Your task to perform on an android device: Open ESPN.com Image 0: 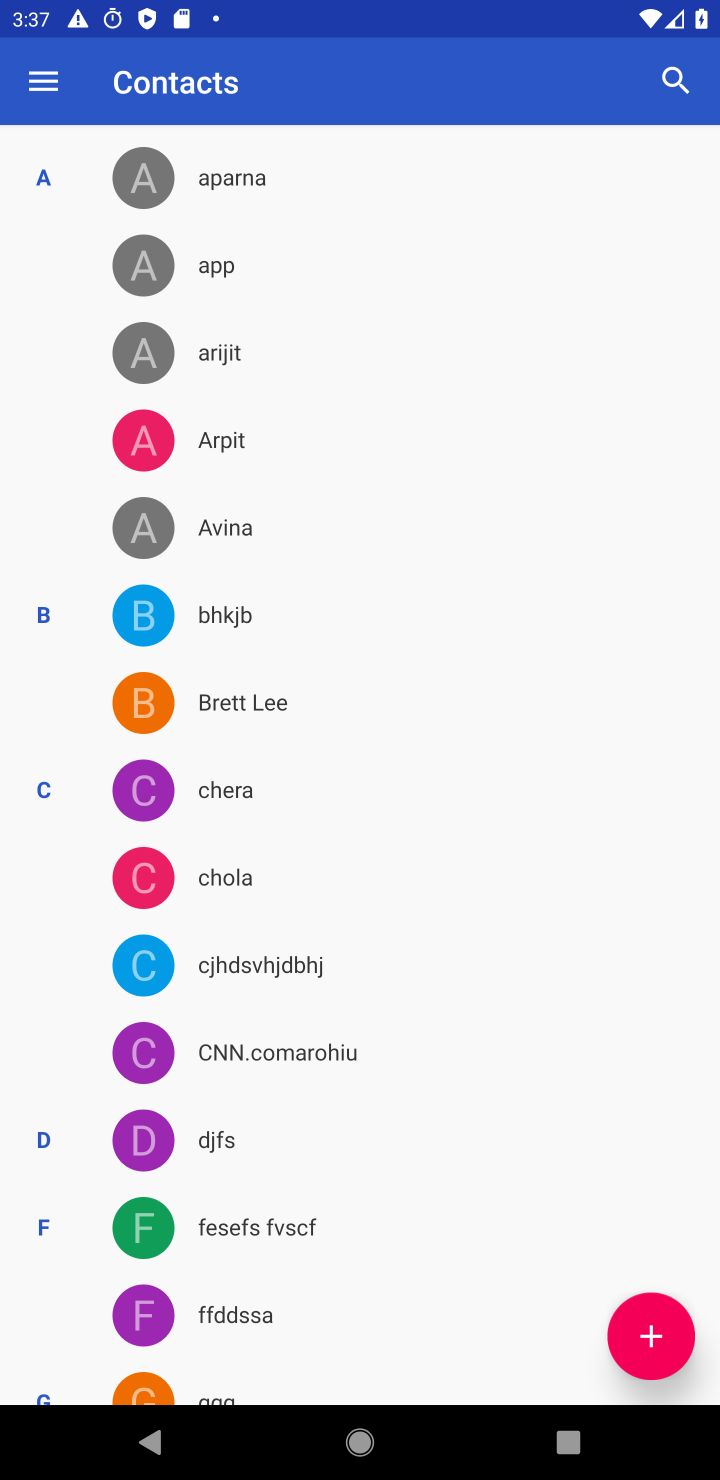
Step 0: press home button
Your task to perform on an android device: Open ESPN.com Image 1: 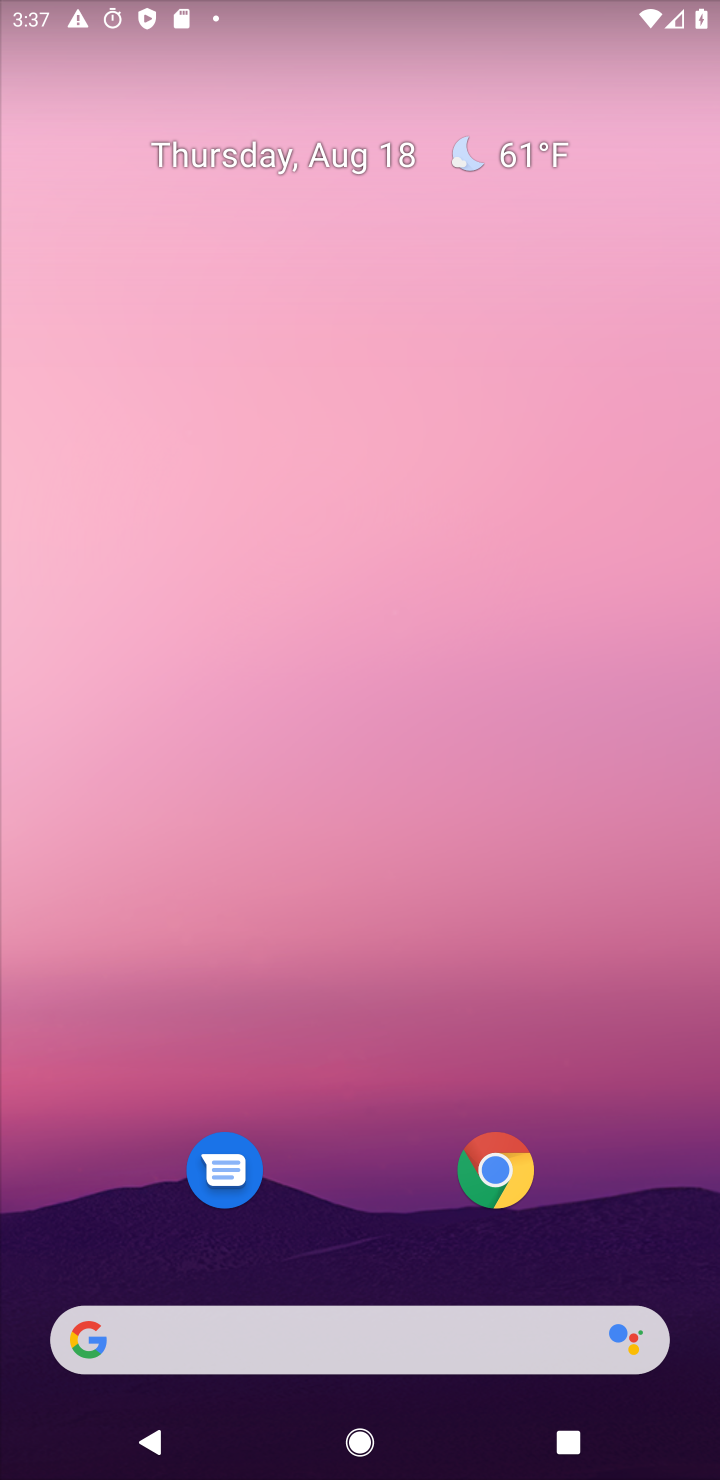
Step 1: click (179, 1325)
Your task to perform on an android device: Open ESPN.com Image 2: 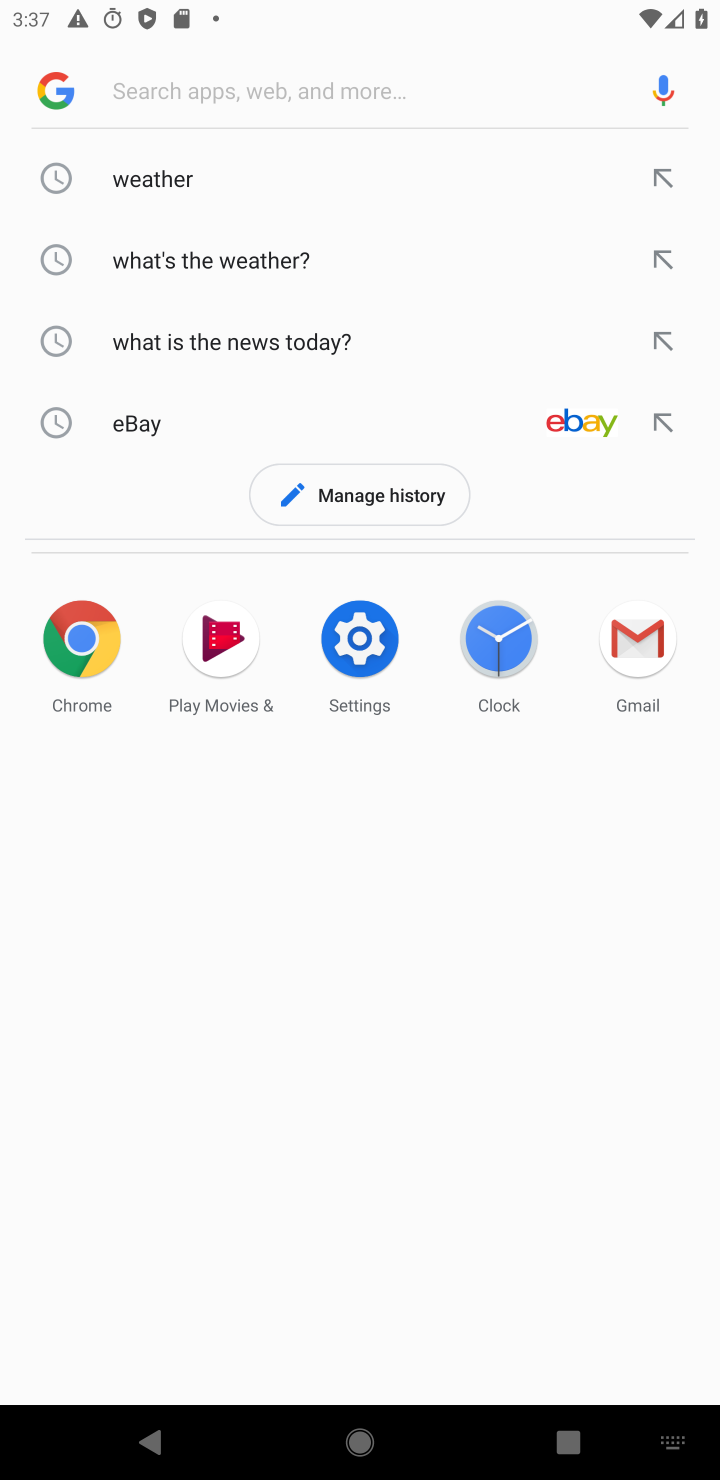
Step 2: type "ESPN.com"
Your task to perform on an android device: Open ESPN.com Image 3: 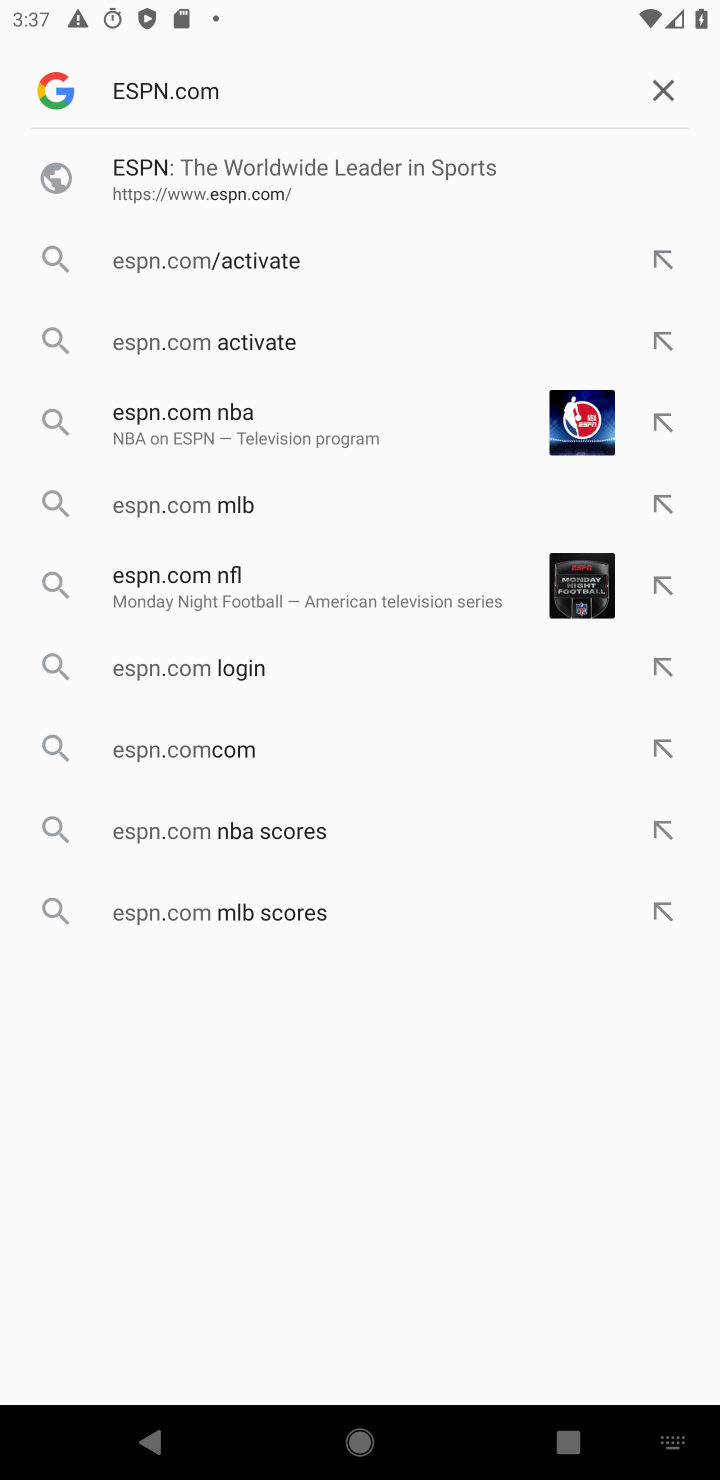
Step 3: type ""
Your task to perform on an android device: Open ESPN.com Image 4: 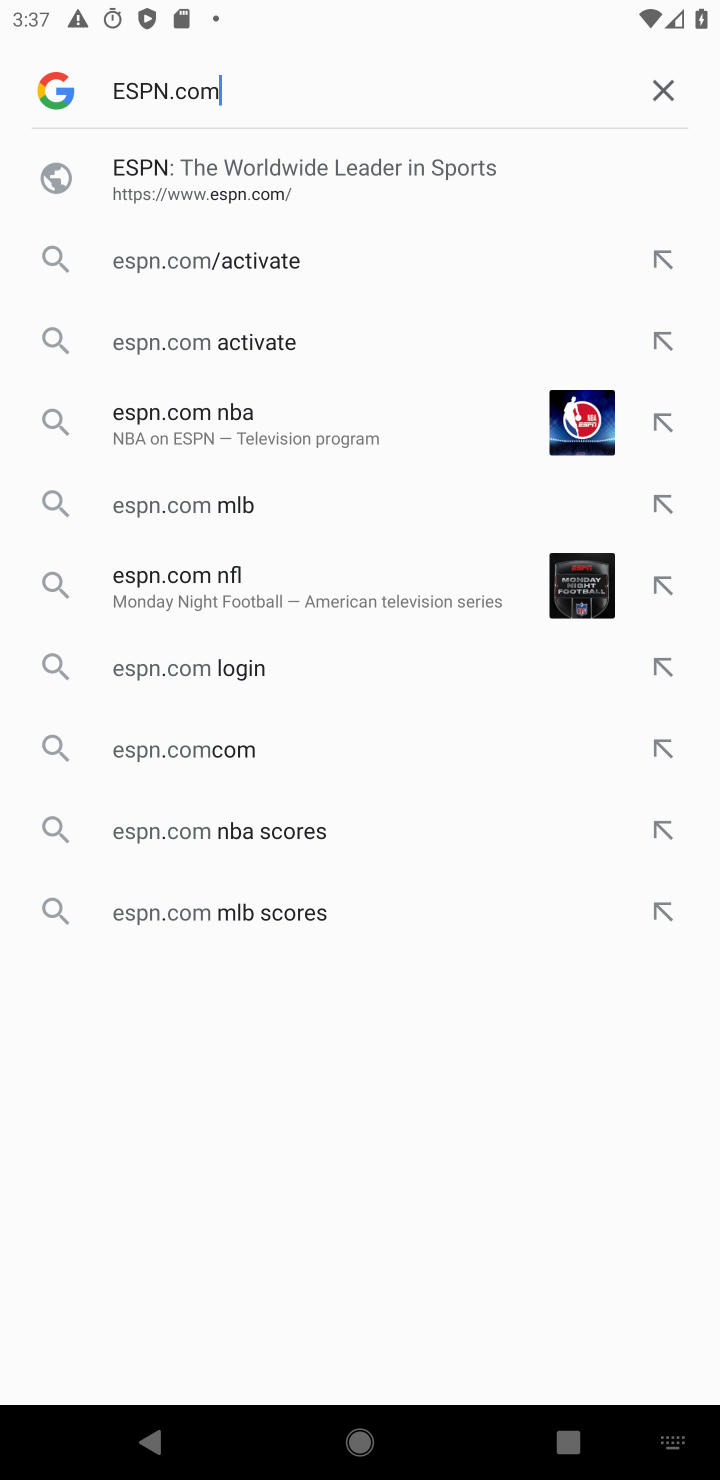
Step 4: type ""
Your task to perform on an android device: Open ESPN.com Image 5: 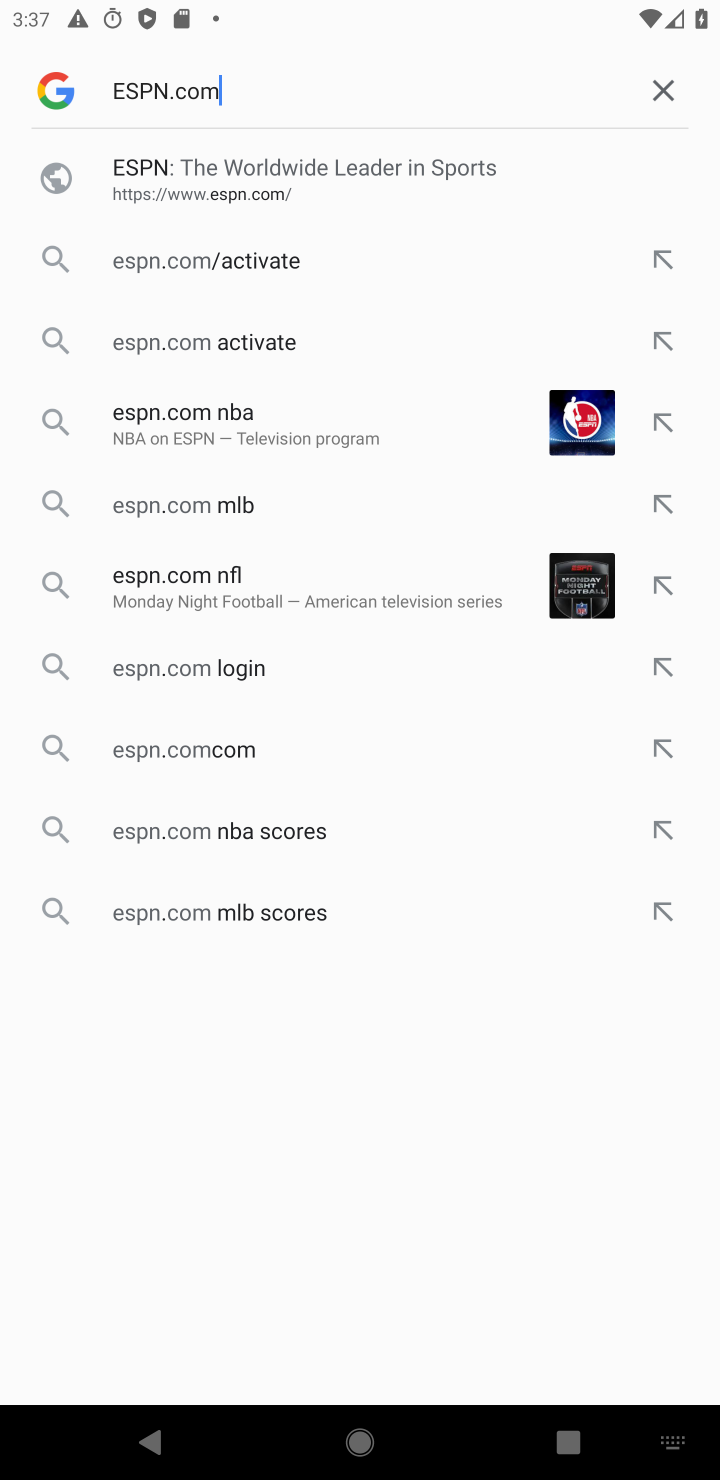
Step 5: task complete